Your task to perform on an android device: Go to notification settings Image 0: 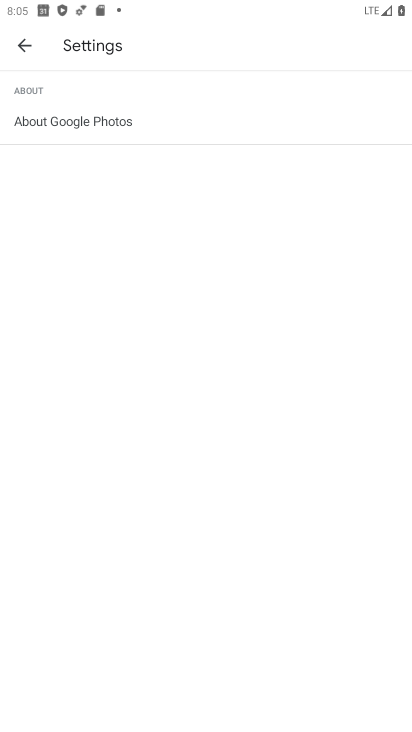
Step 0: press home button
Your task to perform on an android device: Go to notification settings Image 1: 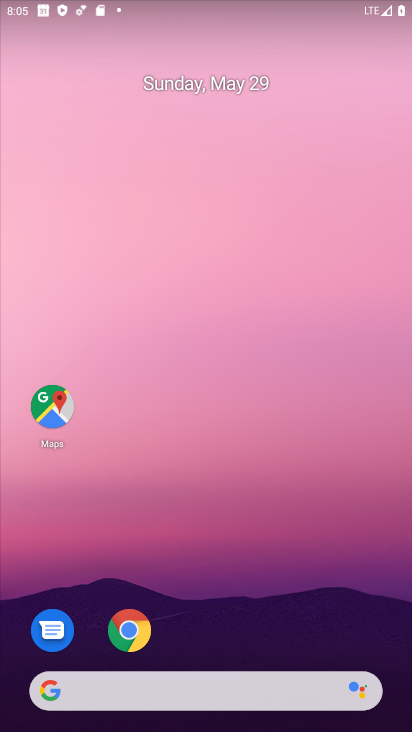
Step 1: drag from (199, 659) to (200, 300)
Your task to perform on an android device: Go to notification settings Image 2: 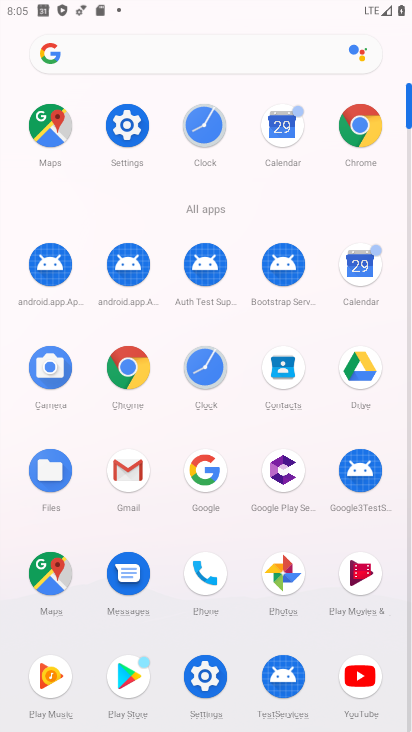
Step 2: click (130, 129)
Your task to perform on an android device: Go to notification settings Image 3: 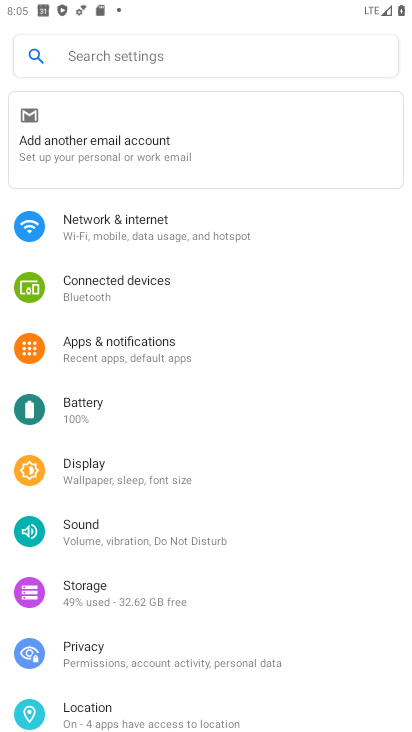
Step 3: click (160, 349)
Your task to perform on an android device: Go to notification settings Image 4: 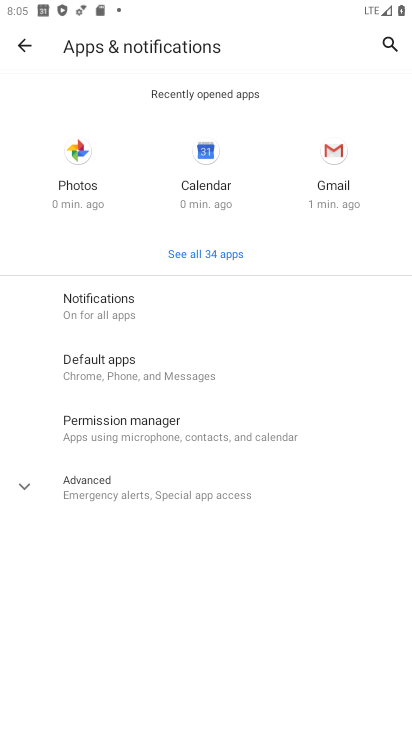
Step 4: click (128, 320)
Your task to perform on an android device: Go to notification settings Image 5: 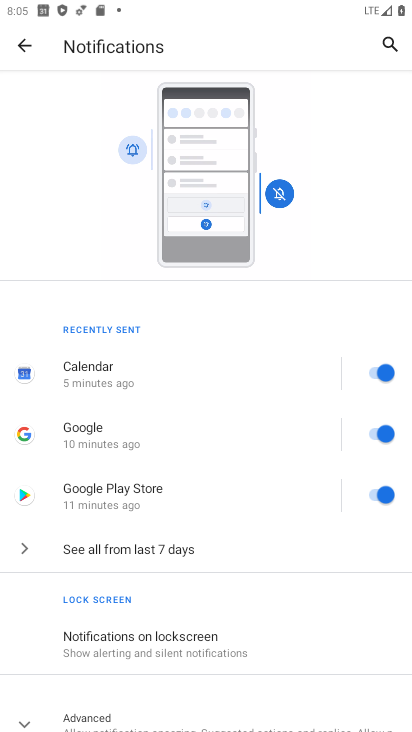
Step 5: task complete